Your task to perform on an android device: Open Chrome and go to settings Image 0: 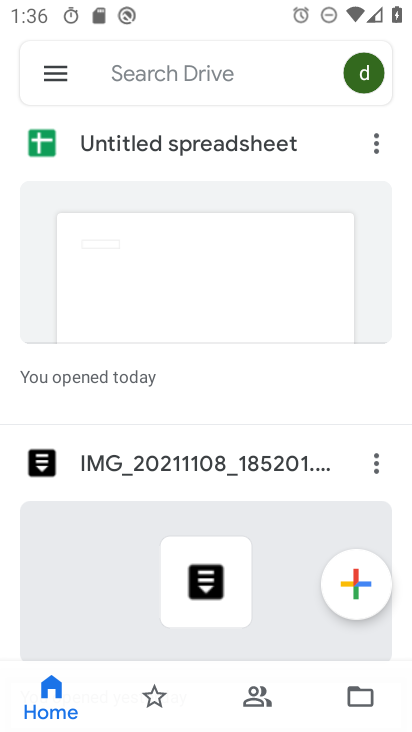
Step 0: press home button
Your task to perform on an android device: Open Chrome and go to settings Image 1: 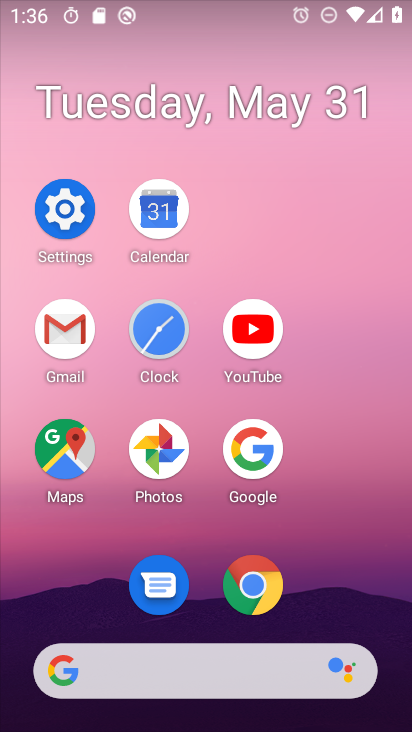
Step 1: click (260, 598)
Your task to perform on an android device: Open Chrome and go to settings Image 2: 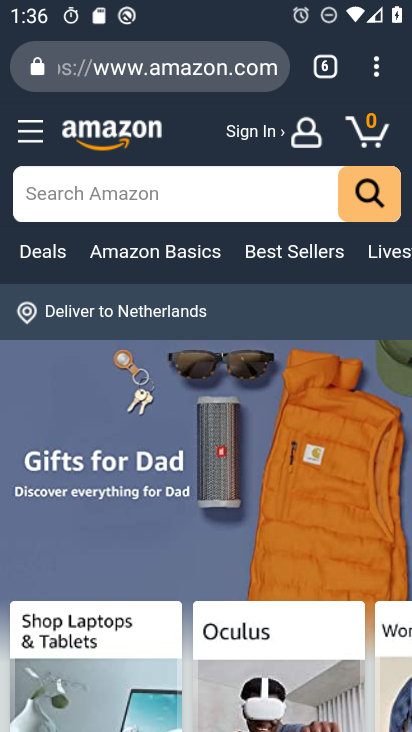
Step 2: click (386, 73)
Your task to perform on an android device: Open Chrome and go to settings Image 3: 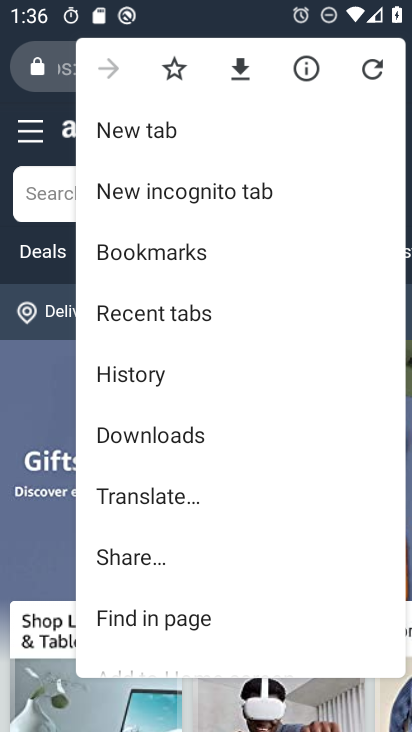
Step 3: drag from (157, 552) to (185, 132)
Your task to perform on an android device: Open Chrome and go to settings Image 4: 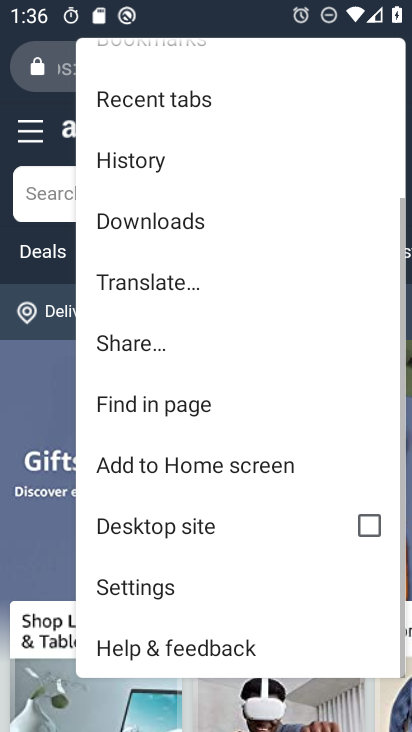
Step 4: click (161, 586)
Your task to perform on an android device: Open Chrome and go to settings Image 5: 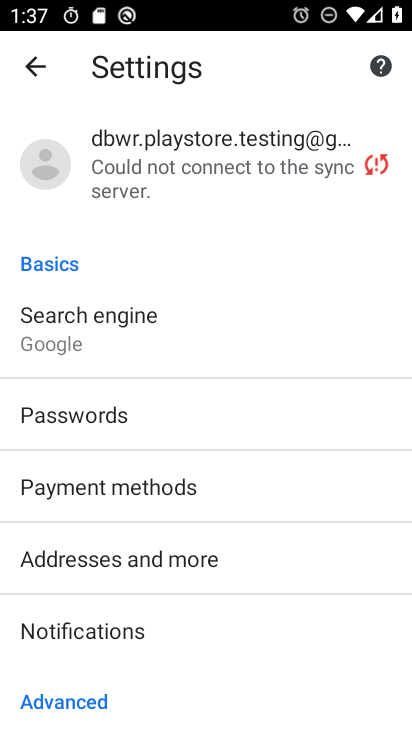
Step 5: task complete